Your task to perform on an android device: change notification settings in the gmail app Image 0: 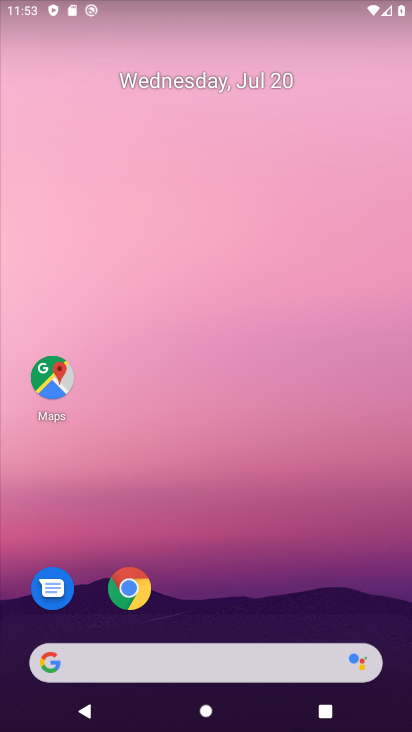
Step 0: drag from (247, 577) to (280, 37)
Your task to perform on an android device: change notification settings in the gmail app Image 1: 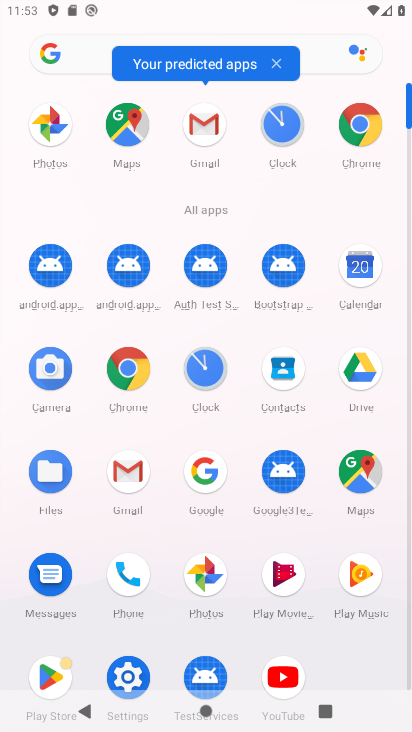
Step 1: click (201, 134)
Your task to perform on an android device: change notification settings in the gmail app Image 2: 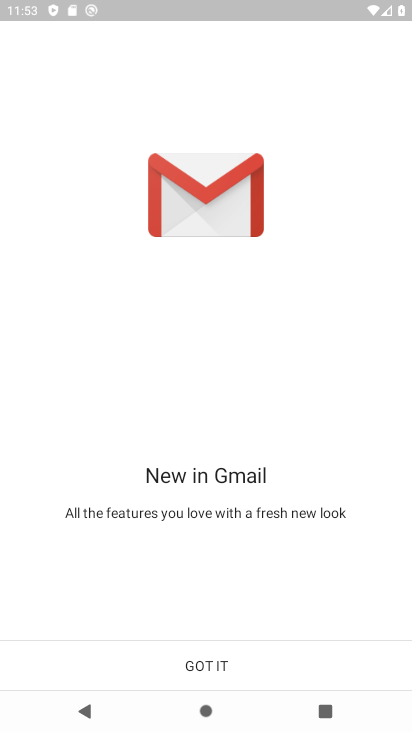
Step 2: click (264, 655)
Your task to perform on an android device: change notification settings in the gmail app Image 3: 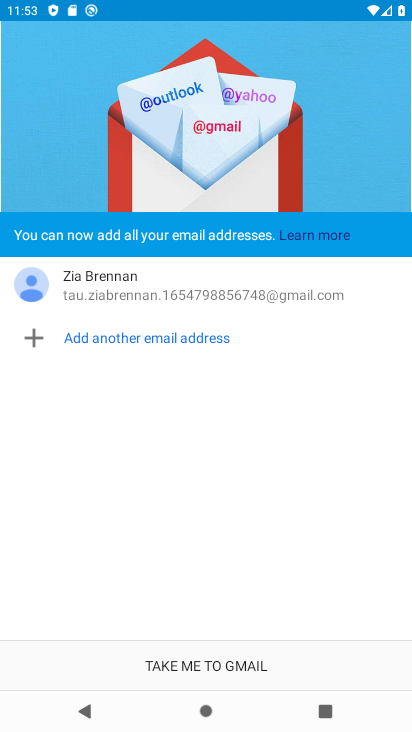
Step 3: click (264, 655)
Your task to perform on an android device: change notification settings in the gmail app Image 4: 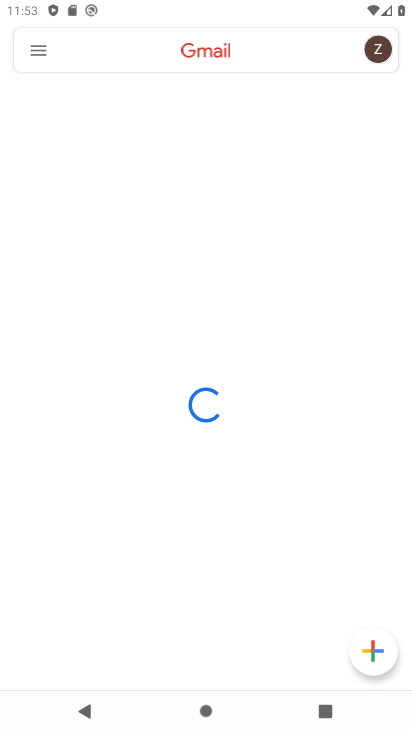
Step 4: click (38, 49)
Your task to perform on an android device: change notification settings in the gmail app Image 5: 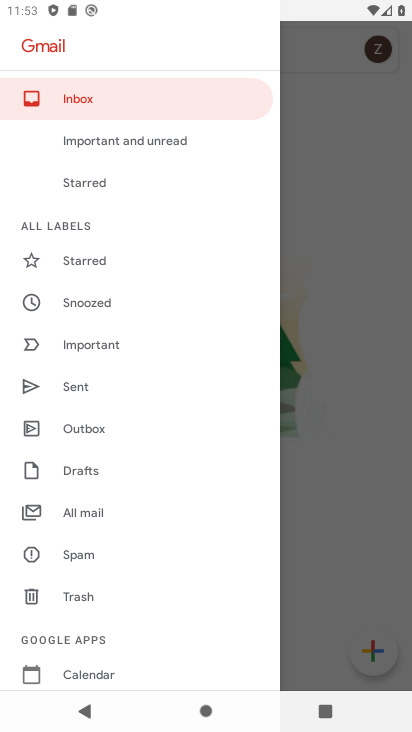
Step 5: drag from (65, 604) to (65, 247)
Your task to perform on an android device: change notification settings in the gmail app Image 6: 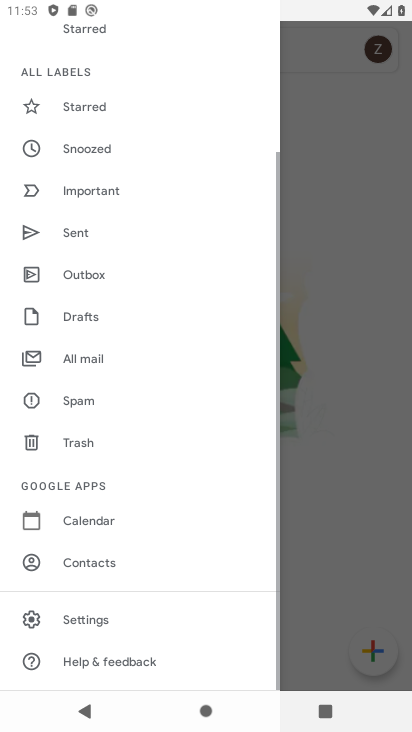
Step 6: click (73, 622)
Your task to perform on an android device: change notification settings in the gmail app Image 7: 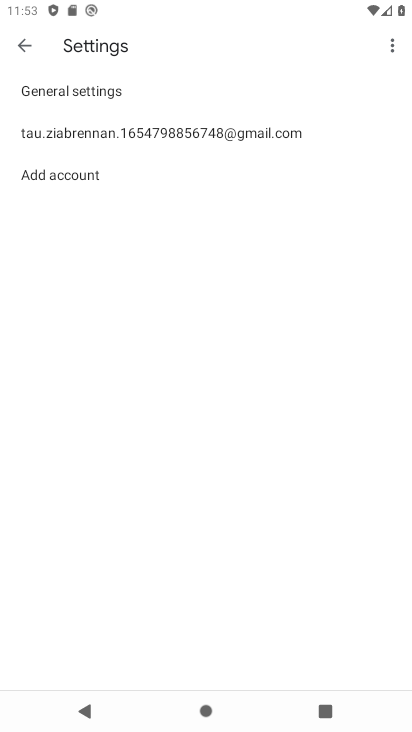
Step 7: click (179, 134)
Your task to perform on an android device: change notification settings in the gmail app Image 8: 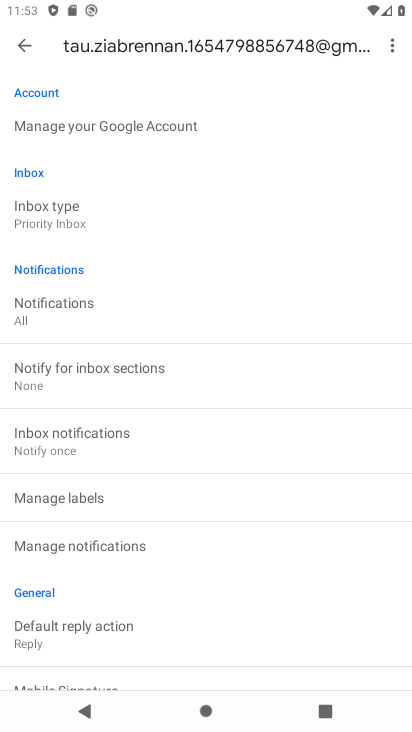
Step 8: click (45, 544)
Your task to perform on an android device: change notification settings in the gmail app Image 9: 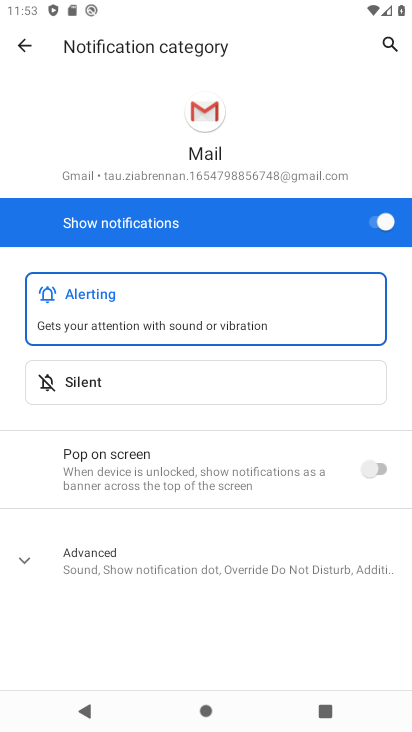
Step 9: click (364, 227)
Your task to perform on an android device: change notification settings in the gmail app Image 10: 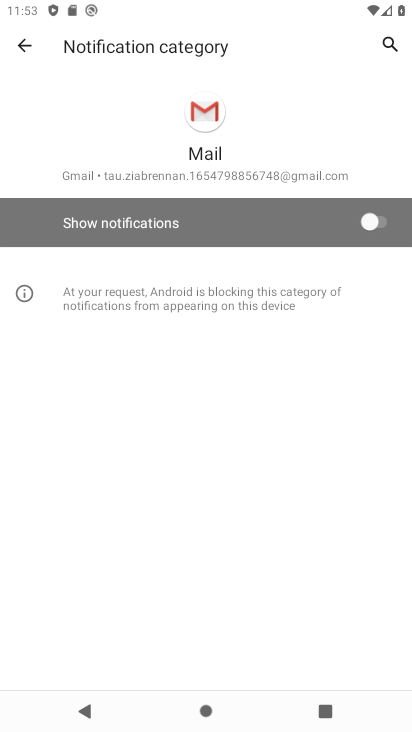
Step 10: task complete